Your task to perform on an android device: turn on translation in the chrome app Image 0: 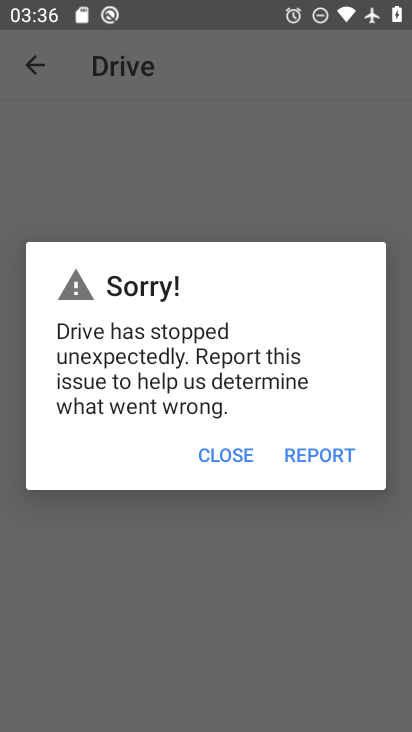
Step 0: press home button
Your task to perform on an android device: turn on translation in the chrome app Image 1: 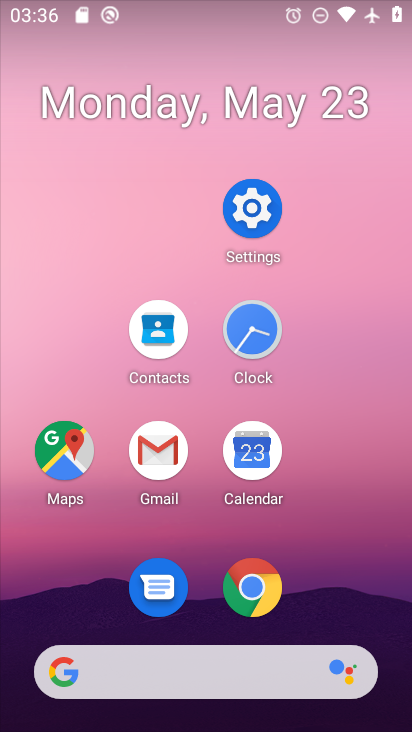
Step 1: click (268, 590)
Your task to perform on an android device: turn on translation in the chrome app Image 2: 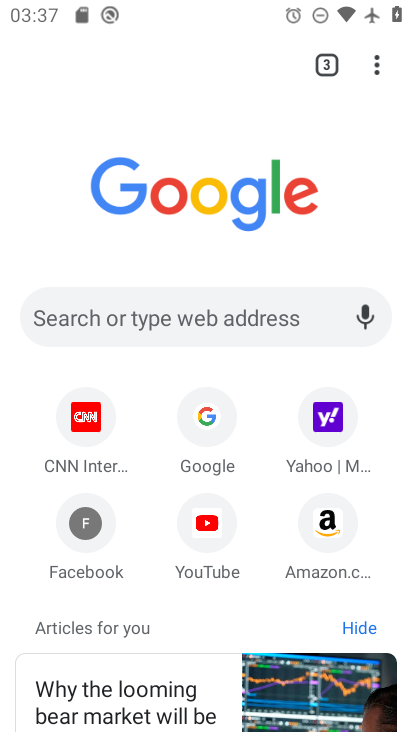
Step 2: click (379, 61)
Your task to perform on an android device: turn on translation in the chrome app Image 3: 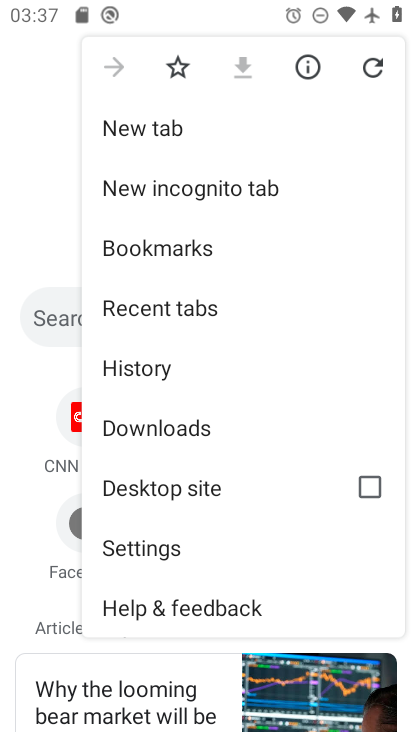
Step 3: click (245, 544)
Your task to perform on an android device: turn on translation in the chrome app Image 4: 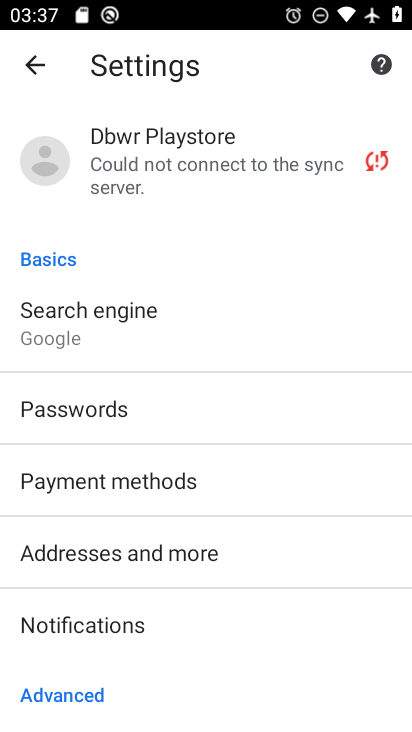
Step 4: drag from (236, 532) to (251, 164)
Your task to perform on an android device: turn on translation in the chrome app Image 5: 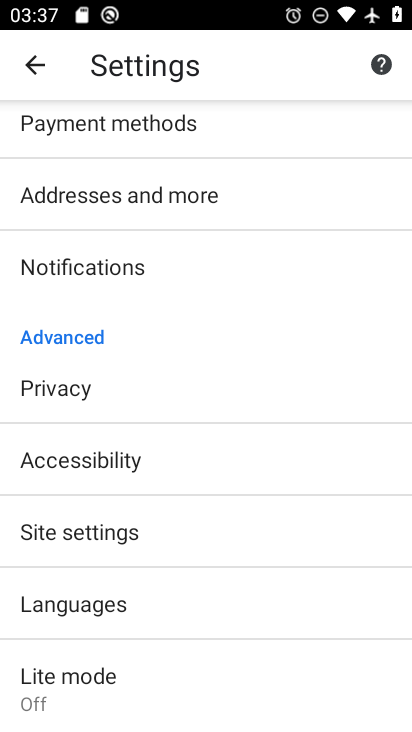
Step 5: click (186, 606)
Your task to perform on an android device: turn on translation in the chrome app Image 6: 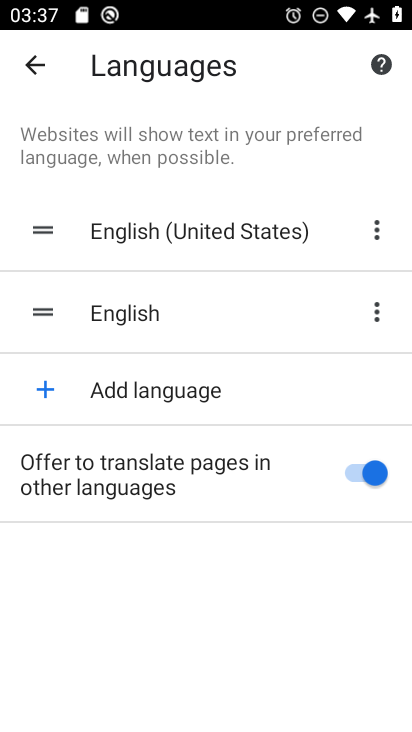
Step 6: task complete